Your task to perform on an android device: star an email in the gmail app Image 0: 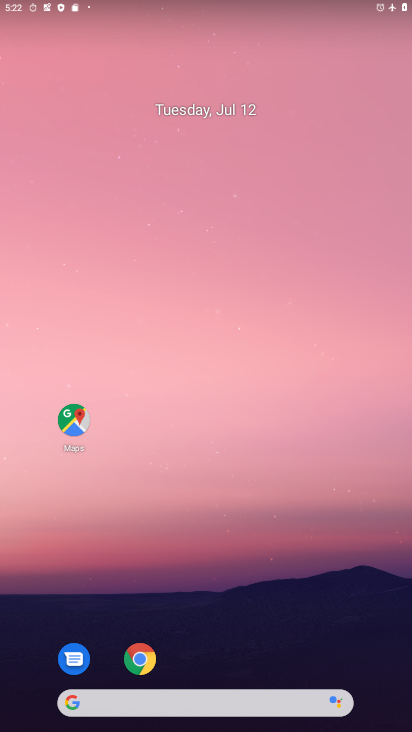
Step 0: drag from (199, 624) to (170, 116)
Your task to perform on an android device: star an email in the gmail app Image 1: 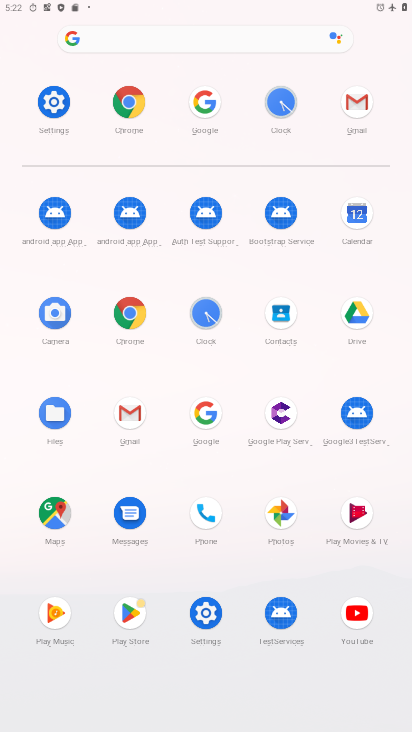
Step 1: click (125, 426)
Your task to perform on an android device: star an email in the gmail app Image 2: 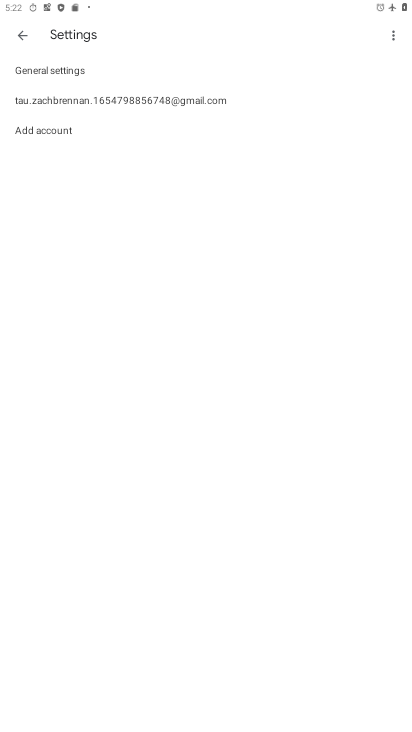
Step 2: click (17, 36)
Your task to perform on an android device: star an email in the gmail app Image 3: 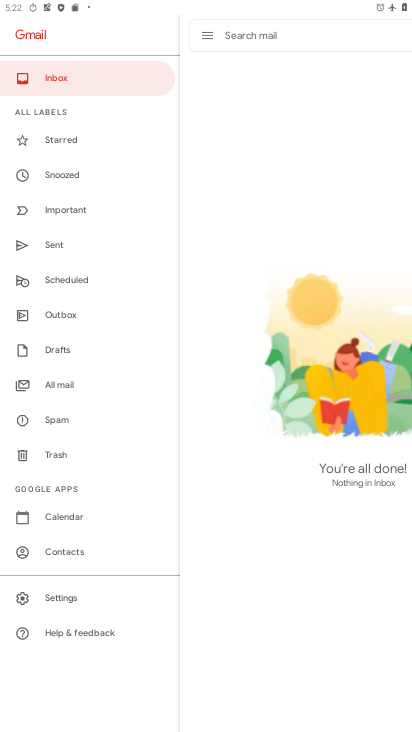
Step 3: task complete